Your task to perform on an android device: Turn on the flashlight Image 0: 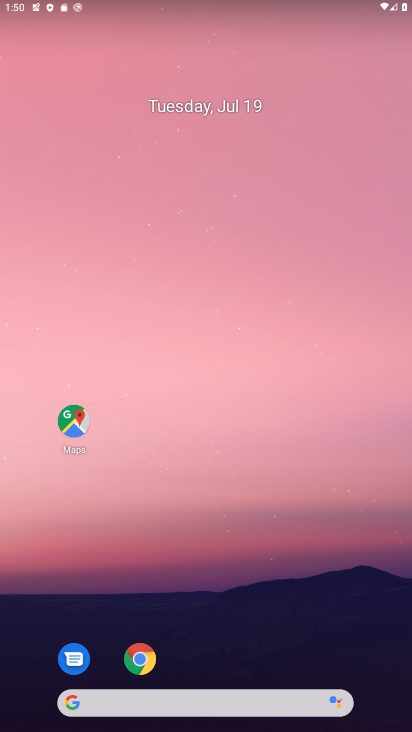
Step 0: press home button
Your task to perform on an android device: Turn on the flashlight Image 1: 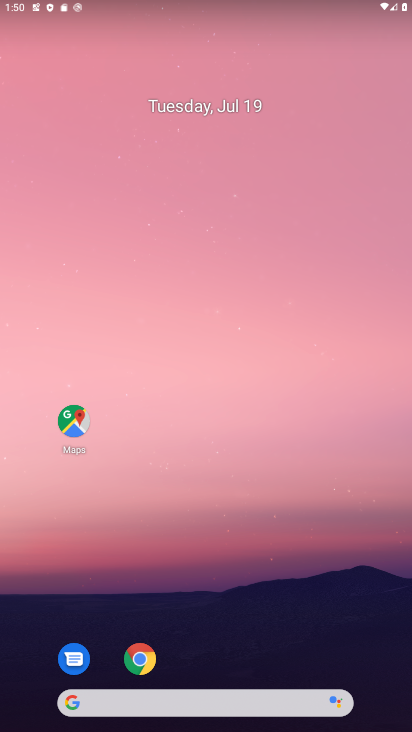
Step 1: task complete